Your task to perform on an android device: set default search engine in the chrome app Image 0: 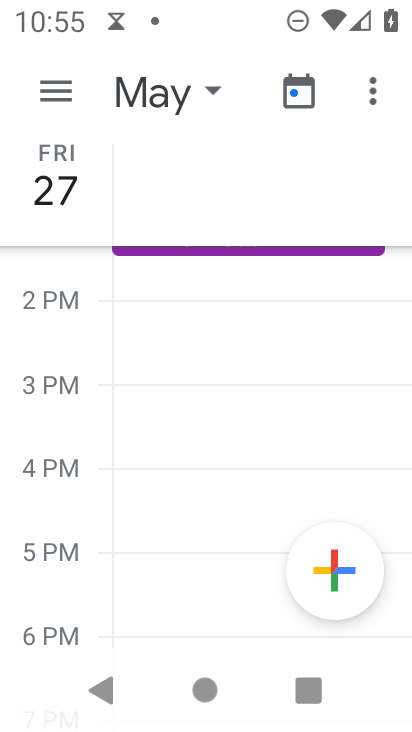
Step 0: press home button
Your task to perform on an android device: set default search engine in the chrome app Image 1: 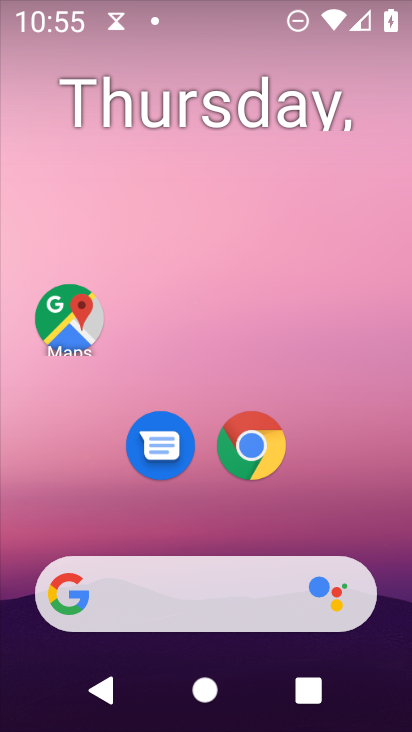
Step 1: click (255, 445)
Your task to perform on an android device: set default search engine in the chrome app Image 2: 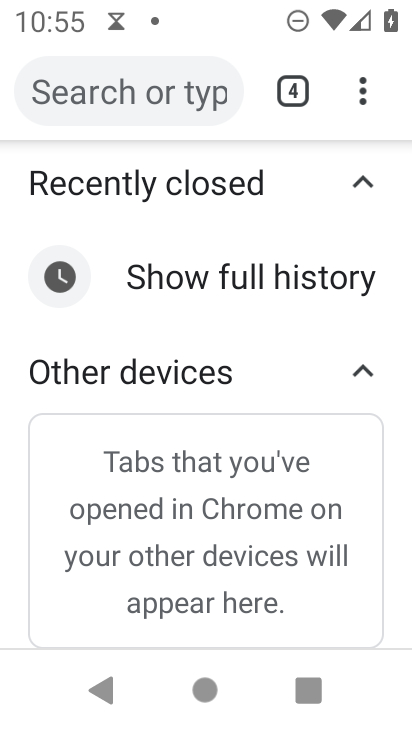
Step 2: click (366, 100)
Your task to perform on an android device: set default search engine in the chrome app Image 3: 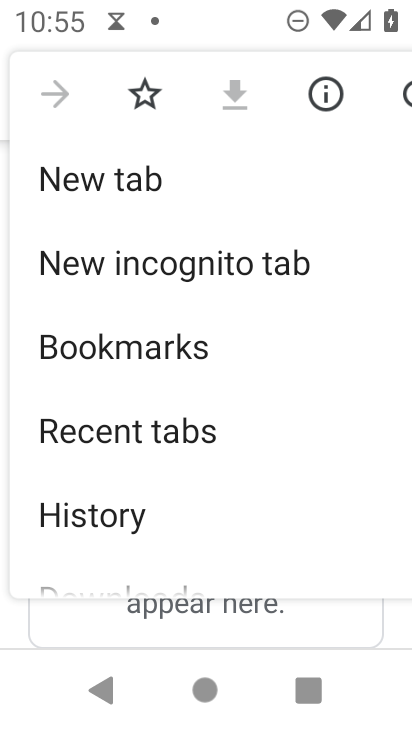
Step 3: drag from (166, 553) to (174, 2)
Your task to perform on an android device: set default search engine in the chrome app Image 4: 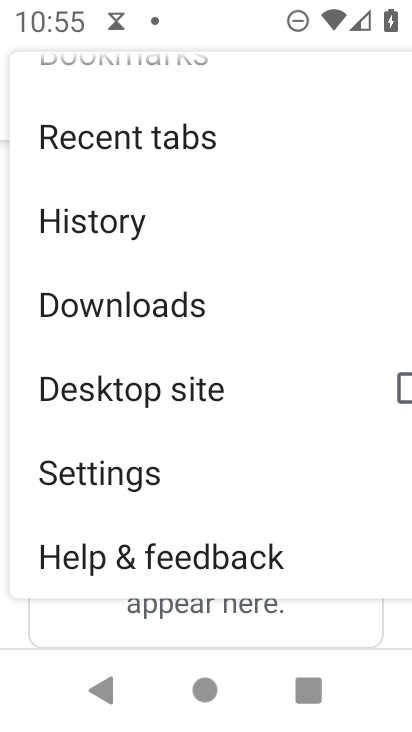
Step 4: click (102, 467)
Your task to perform on an android device: set default search engine in the chrome app Image 5: 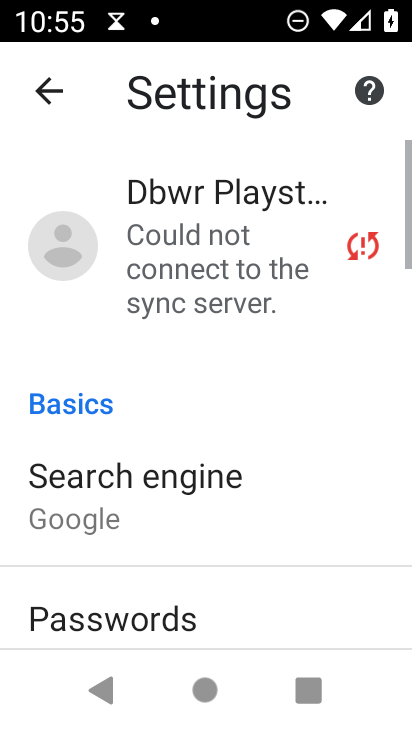
Step 5: click (92, 484)
Your task to perform on an android device: set default search engine in the chrome app Image 6: 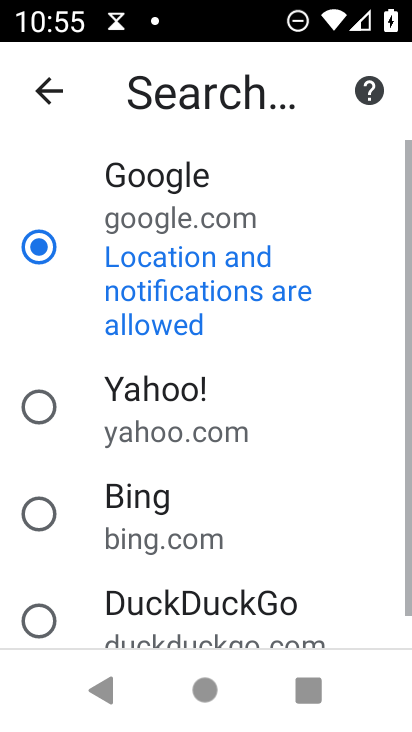
Step 6: click (40, 395)
Your task to perform on an android device: set default search engine in the chrome app Image 7: 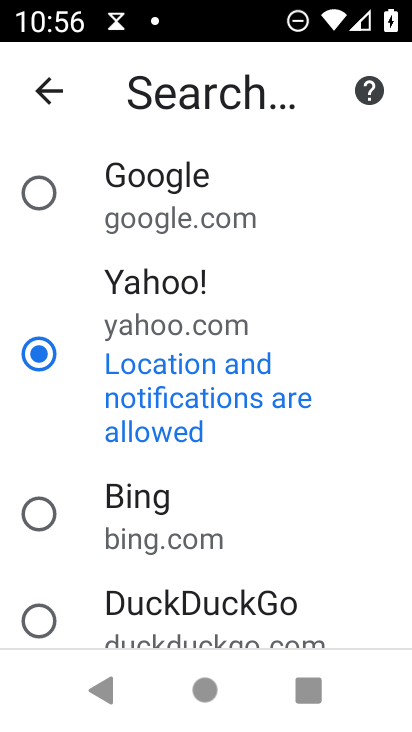
Step 7: click (42, 188)
Your task to perform on an android device: set default search engine in the chrome app Image 8: 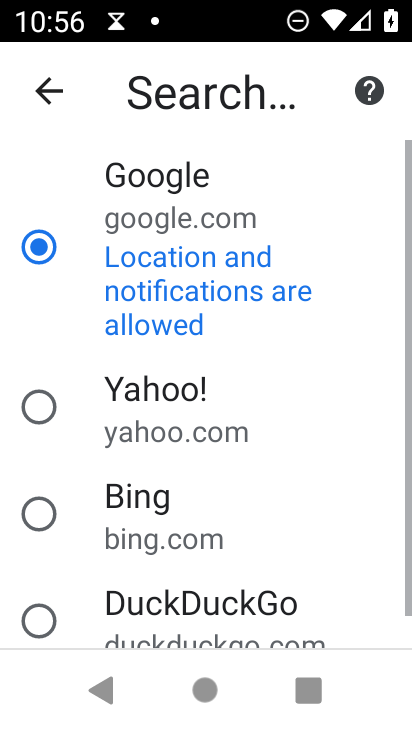
Step 8: task complete